Your task to perform on an android device: Open wifi settings Image 0: 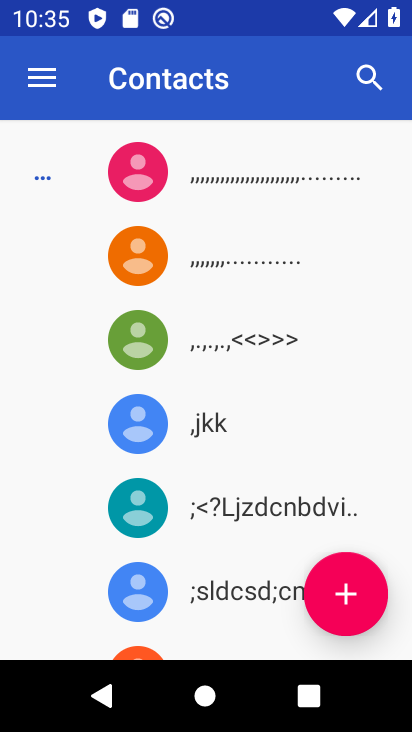
Step 0: press back button
Your task to perform on an android device: Open wifi settings Image 1: 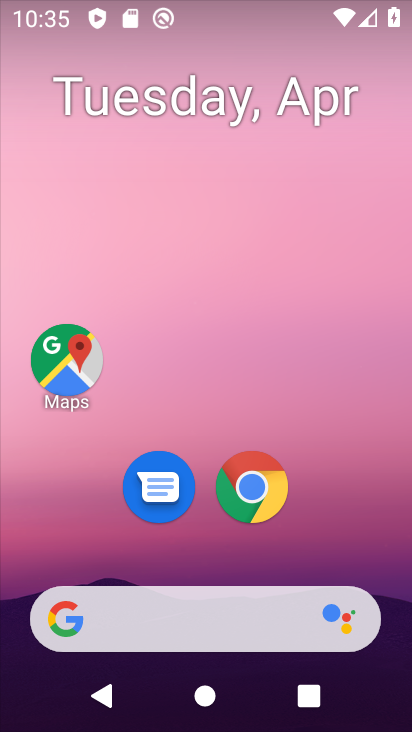
Step 1: drag from (221, 614) to (111, 127)
Your task to perform on an android device: Open wifi settings Image 2: 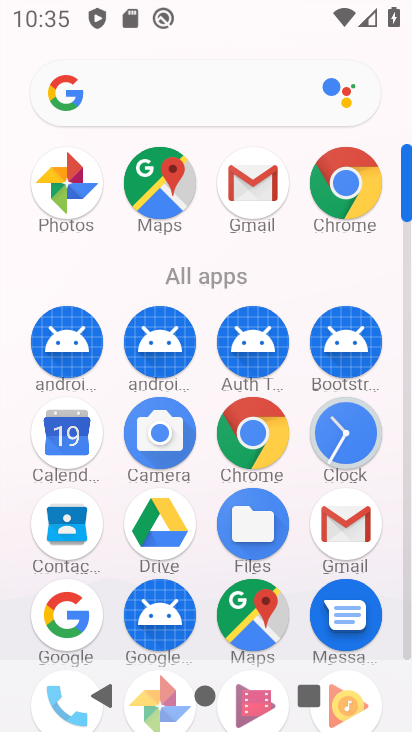
Step 2: drag from (217, 593) to (187, 102)
Your task to perform on an android device: Open wifi settings Image 3: 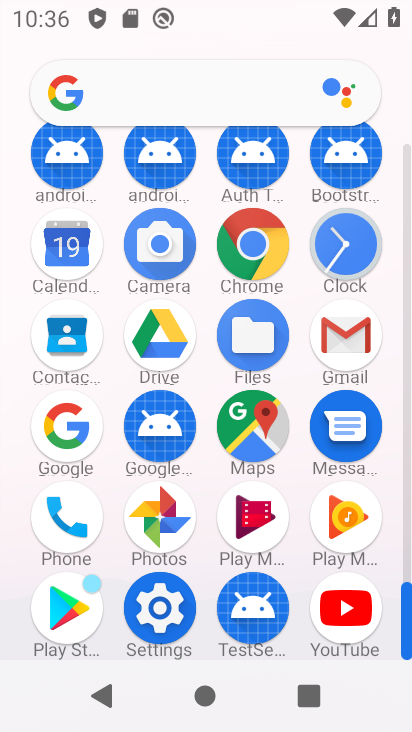
Step 3: click (152, 598)
Your task to perform on an android device: Open wifi settings Image 4: 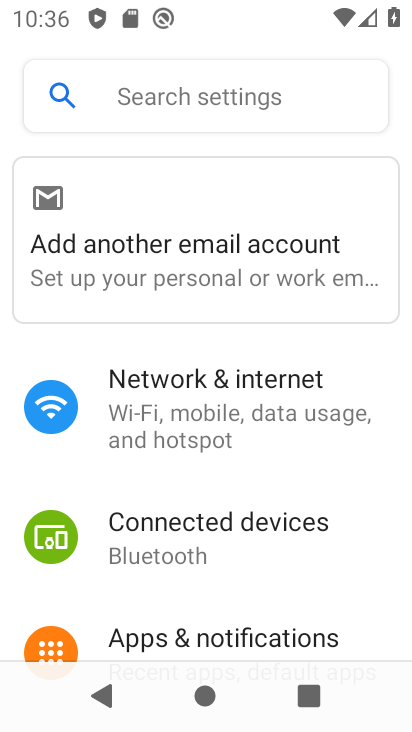
Step 4: click (201, 403)
Your task to perform on an android device: Open wifi settings Image 5: 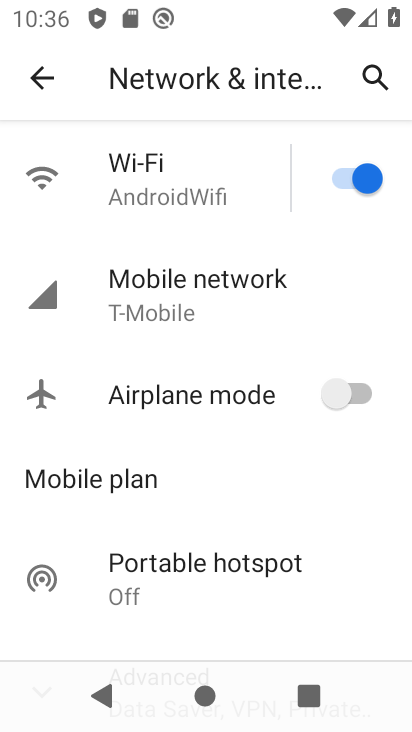
Step 5: click (151, 189)
Your task to perform on an android device: Open wifi settings Image 6: 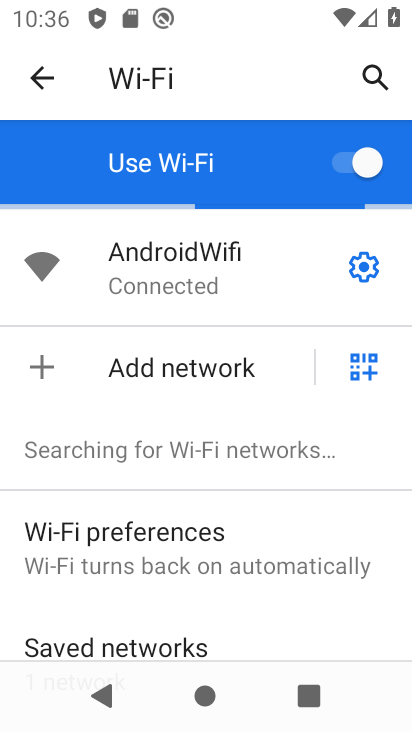
Step 6: task complete